Your task to perform on an android device: Go to location settings Image 0: 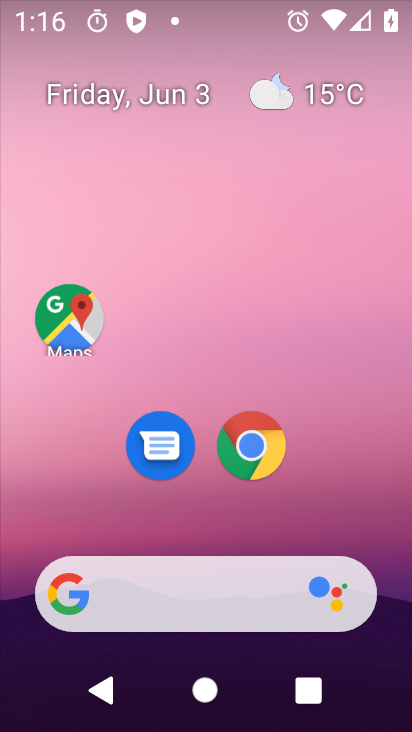
Step 0: drag from (175, 515) to (227, 164)
Your task to perform on an android device: Go to location settings Image 1: 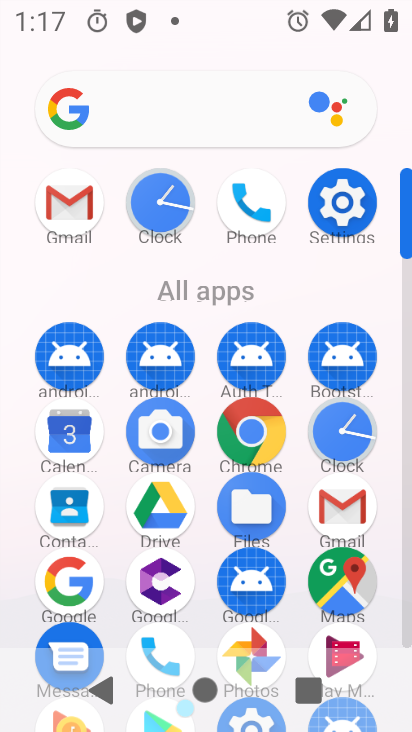
Step 1: click (348, 199)
Your task to perform on an android device: Go to location settings Image 2: 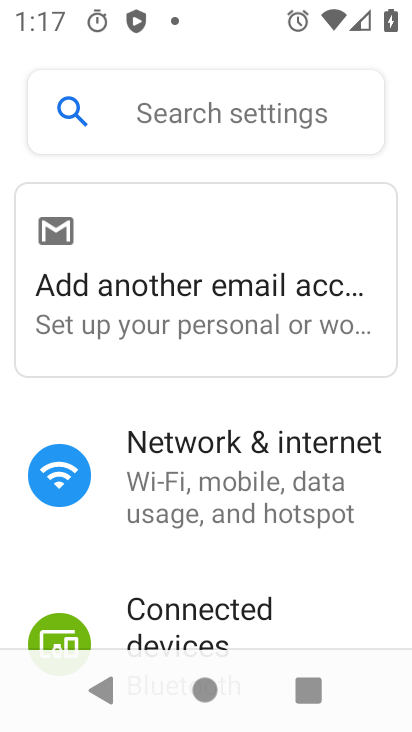
Step 2: drag from (165, 527) to (154, 55)
Your task to perform on an android device: Go to location settings Image 3: 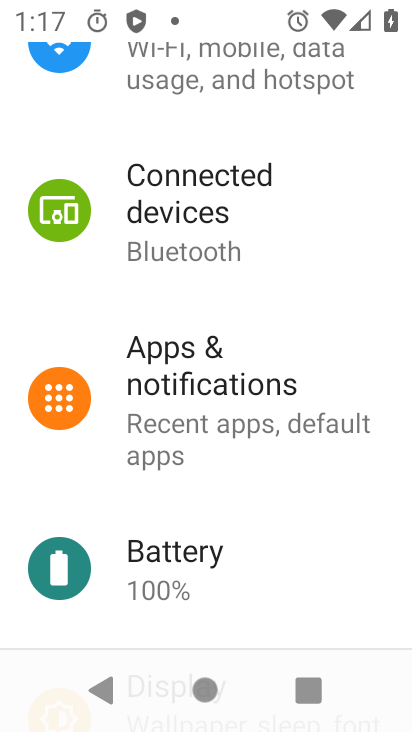
Step 3: drag from (126, 581) to (130, 24)
Your task to perform on an android device: Go to location settings Image 4: 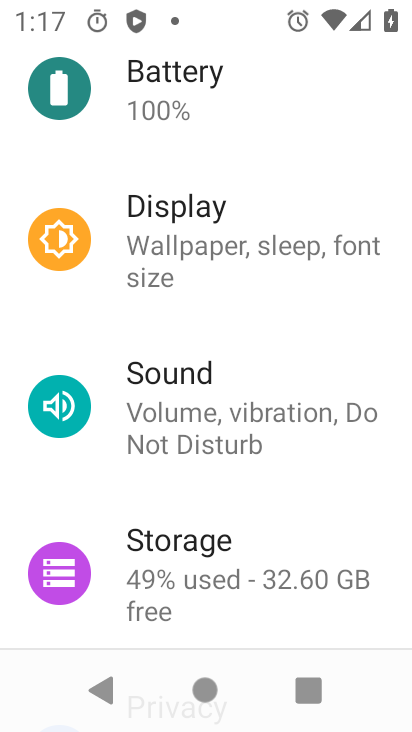
Step 4: drag from (107, 578) to (200, 122)
Your task to perform on an android device: Go to location settings Image 5: 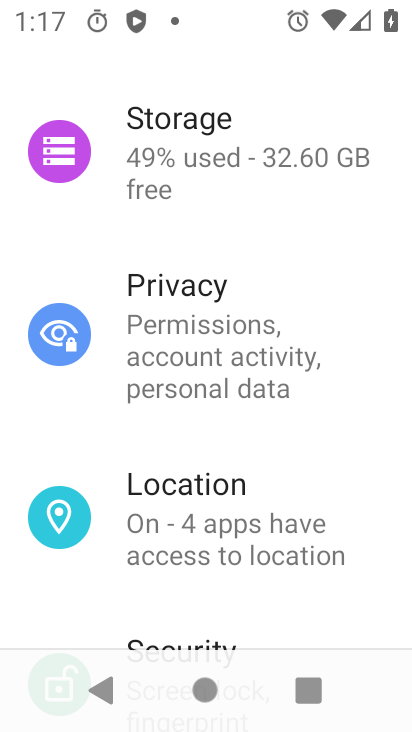
Step 5: click (132, 528)
Your task to perform on an android device: Go to location settings Image 6: 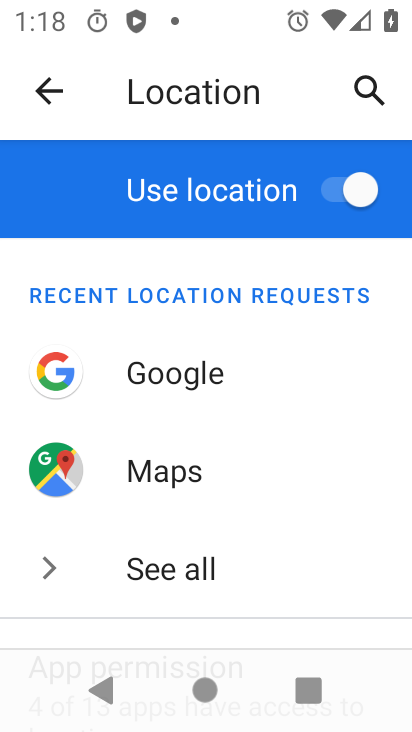
Step 6: task complete